Your task to perform on an android device: Do I have any events this weekend? Image 0: 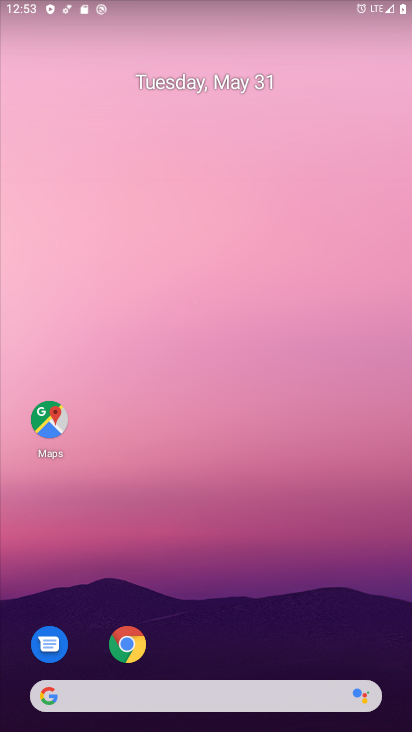
Step 0: drag from (178, 597) to (196, 287)
Your task to perform on an android device: Do I have any events this weekend? Image 1: 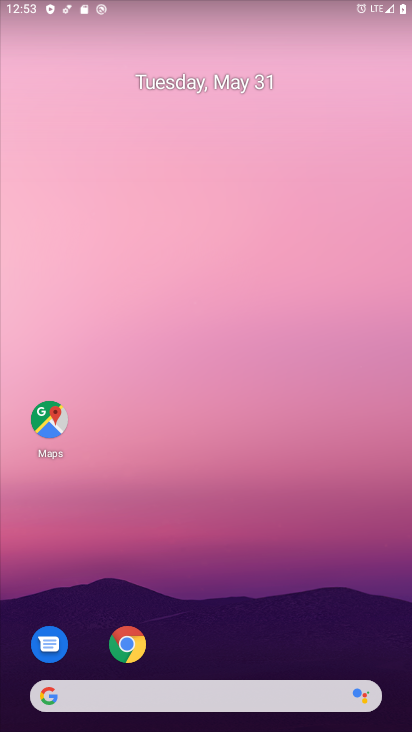
Step 1: drag from (225, 598) to (293, 208)
Your task to perform on an android device: Do I have any events this weekend? Image 2: 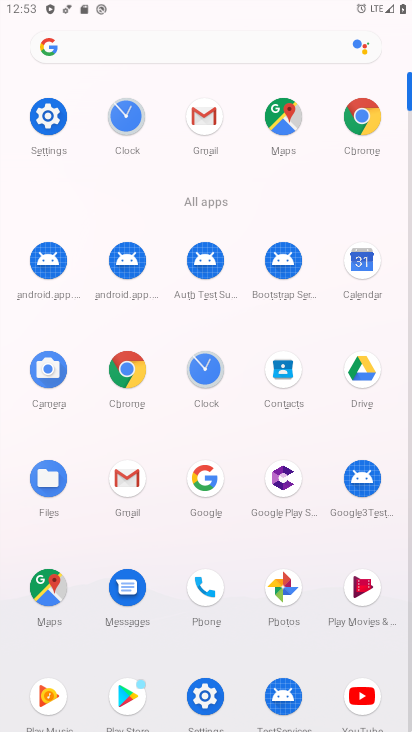
Step 2: click (361, 257)
Your task to perform on an android device: Do I have any events this weekend? Image 3: 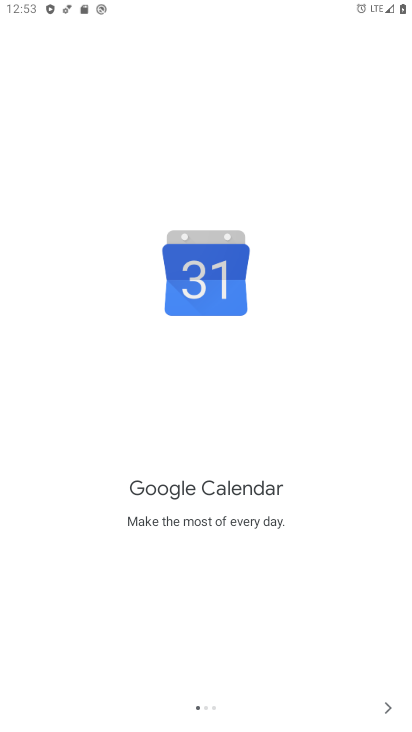
Step 3: click (384, 704)
Your task to perform on an android device: Do I have any events this weekend? Image 4: 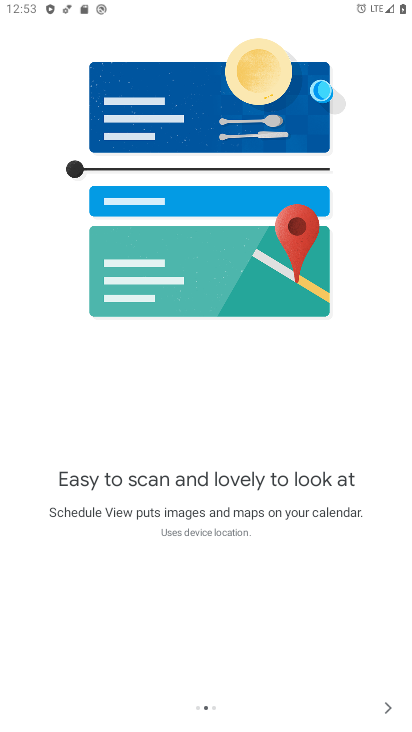
Step 4: click (384, 704)
Your task to perform on an android device: Do I have any events this weekend? Image 5: 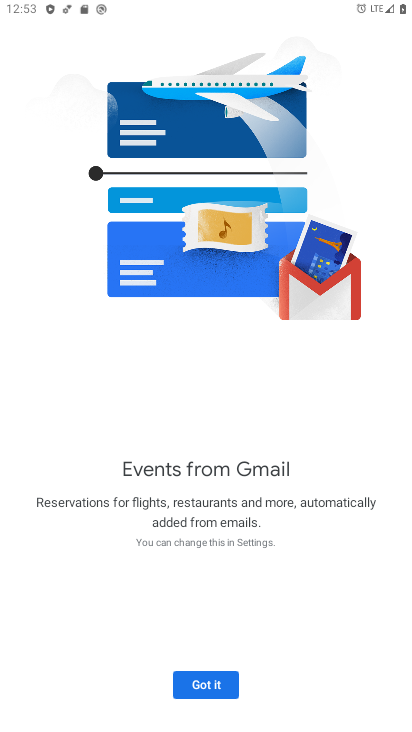
Step 5: click (197, 681)
Your task to perform on an android device: Do I have any events this weekend? Image 6: 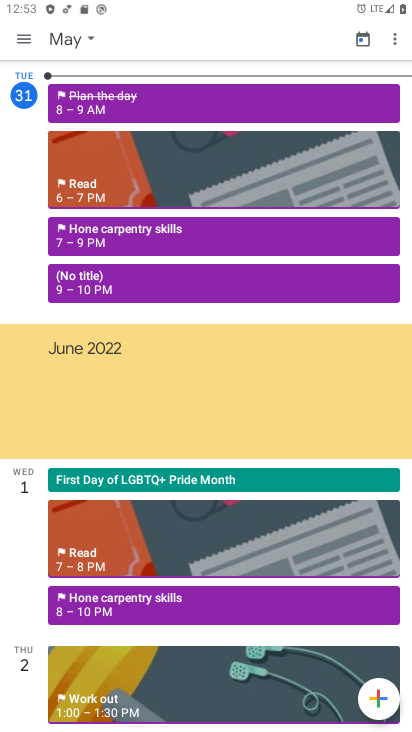
Step 6: click (91, 37)
Your task to perform on an android device: Do I have any events this weekend? Image 7: 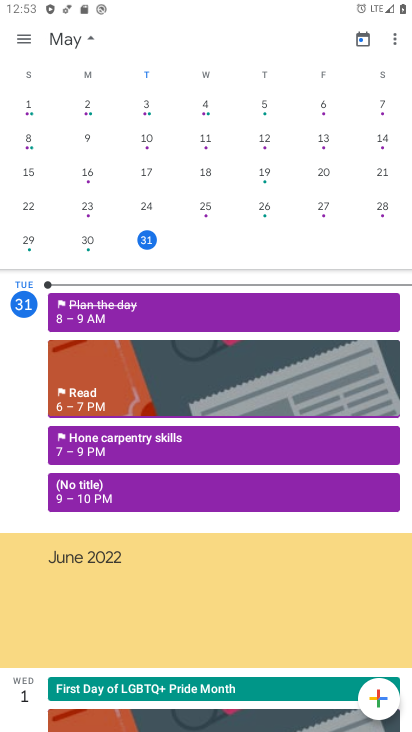
Step 7: drag from (383, 225) to (53, 212)
Your task to perform on an android device: Do I have any events this weekend? Image 8: 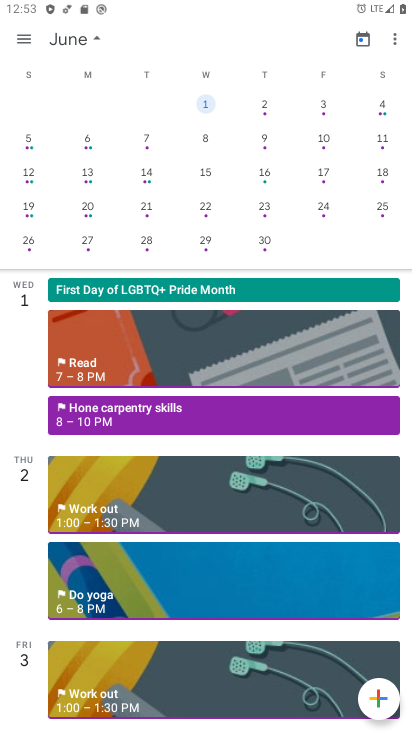
Step 8: click (317, 102)
Your task to perform on an android device: Do I have any events this weekend? Image 9: 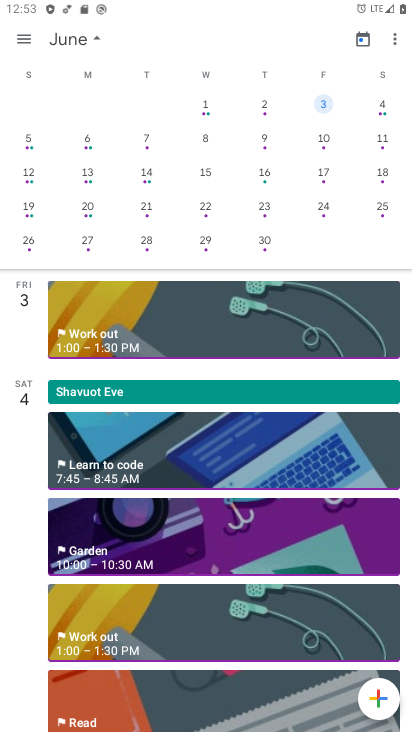
Step 9: click (389, 108)
Your task to perform on an android device: Do I have any events this weekend? Image 10: 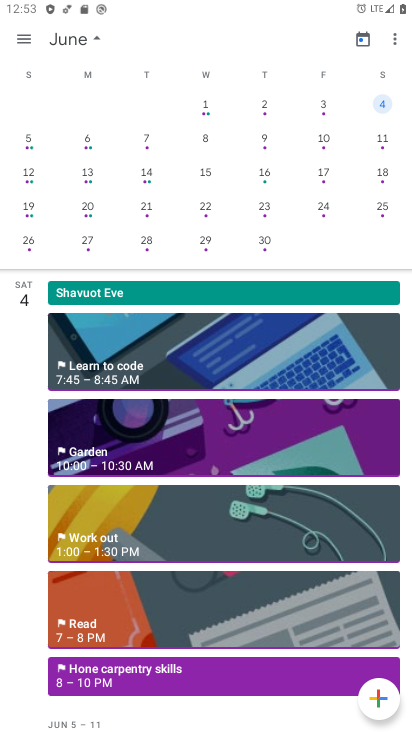
Step 10: click (26, 142)
Your task to perform on an android device: Do I have any events this weekend? Image 11: 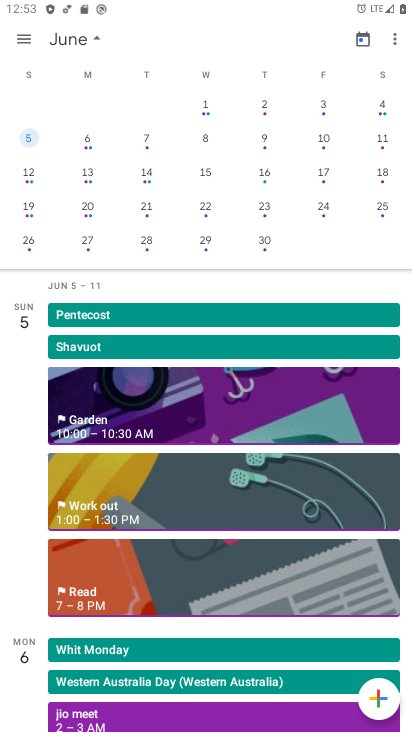
Step 11: task complete